Your task to perform on an android device: turn off smart reply in the gmail app Image 0: 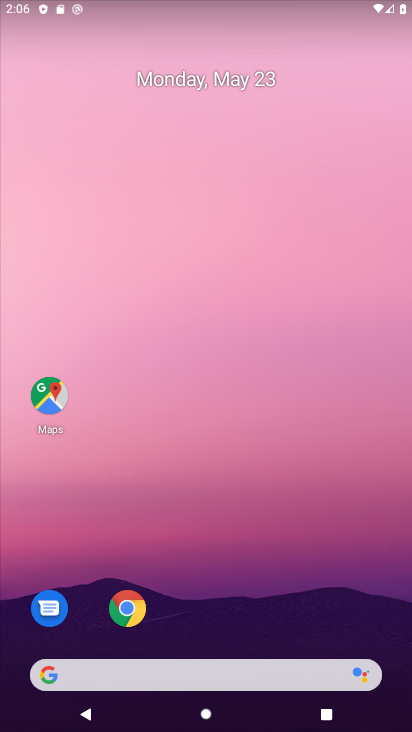
Step 0: drag from (256, 585) to (319, 234)
Your task to perform on an android device: turn off smart reply in the gmail app Image 1: 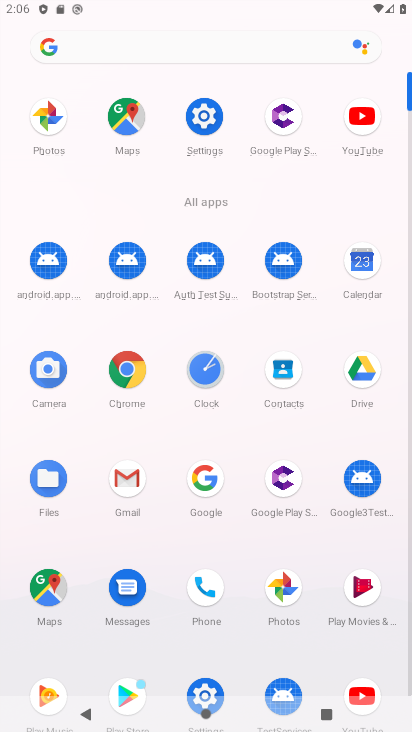
Step 1: click (137, 464)
Your task to perform on an android device: turn off smart reply in the gmail app Image 2: 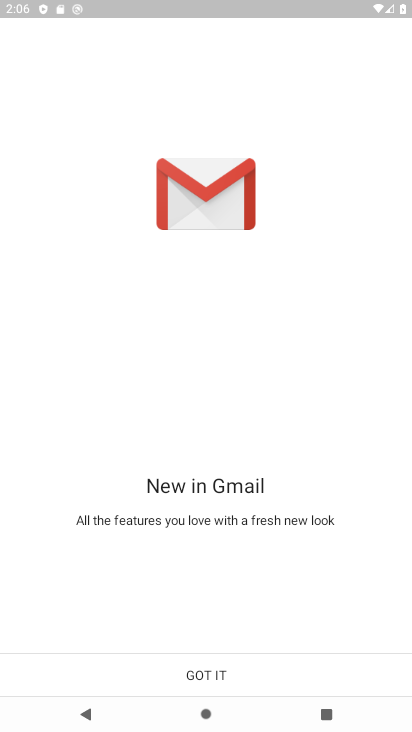
Step 2: click (236, 676)
Your task to perform on an android device: turn off smart reply in the gmail app Image 3: 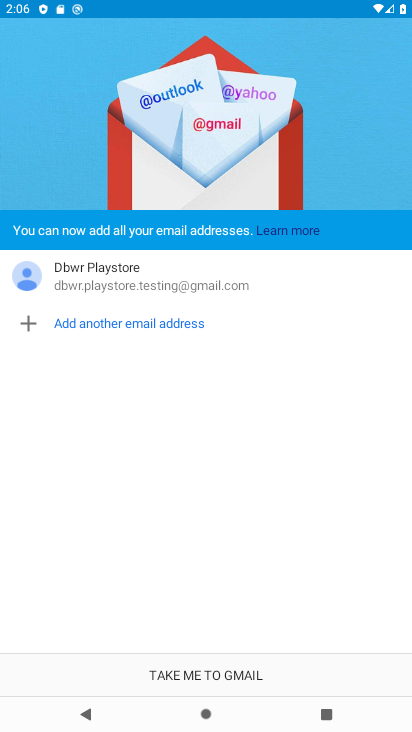
Step 3: click (237, 675)
Your task to perform on an android device: turn off smart reply in the gmail app Image 4: 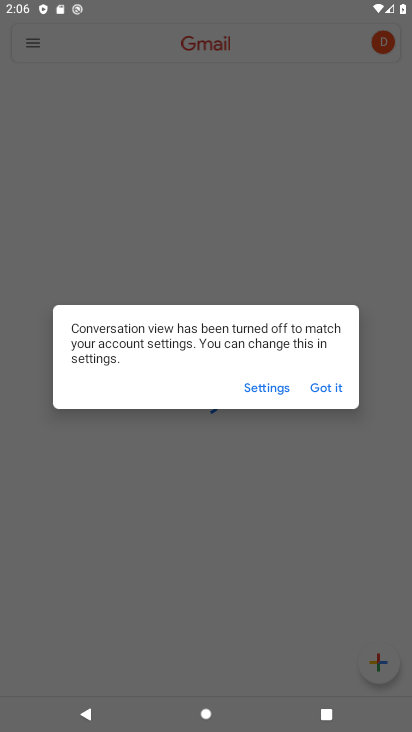
Step 4: click (283, 386)
Your task to perform on an android device: turn off smart reply in the gmail app Image 5: 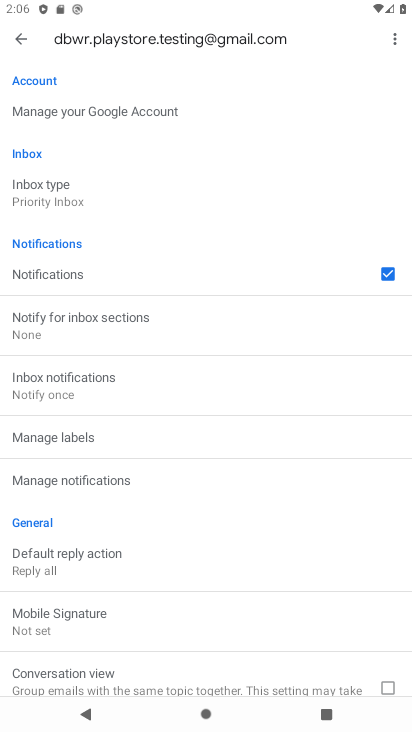
Step 5: drag from (165, 620) to (228, 357)
Your task to perform on an android device: turn off smart reply in the gmail app Image 6: 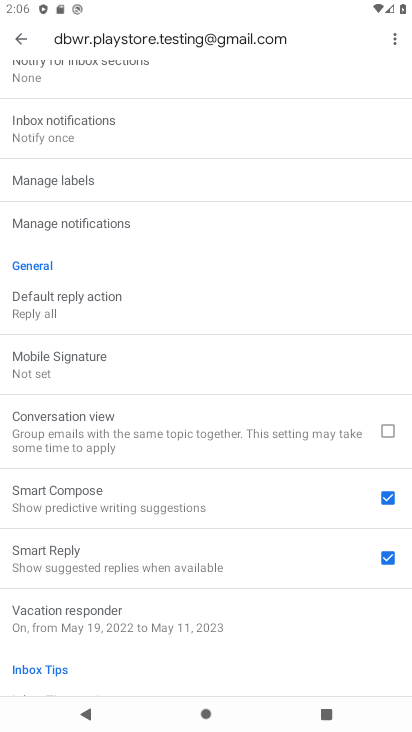
Step 6: click (391, 547)
Your task to perform on an android device: turn off smart reply in the gmail app Image 7: 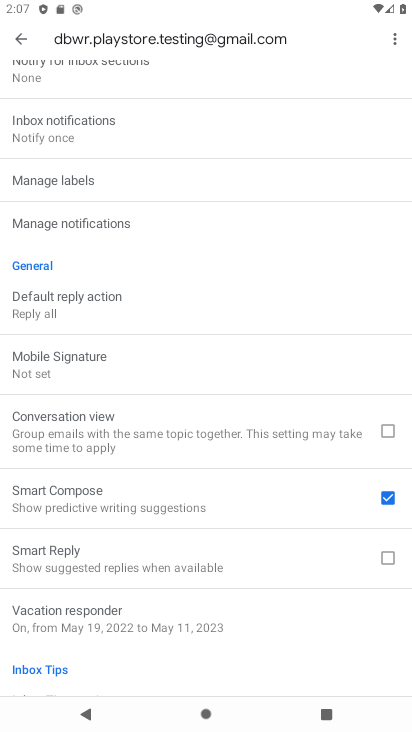
Step 7: task complete